Your task to perform on an android device: delete browsing data in the chrome app Image 0: 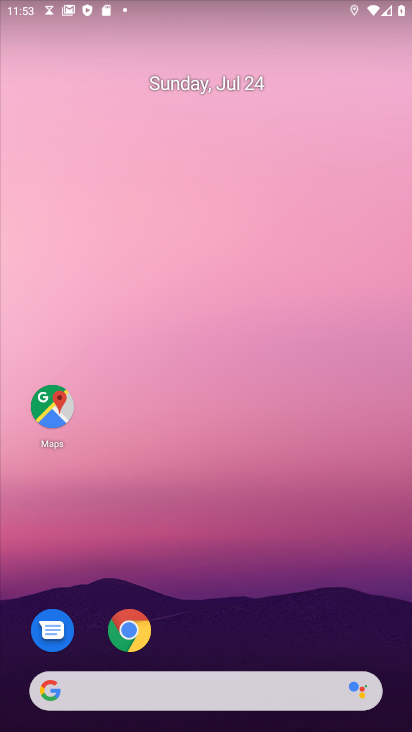
Step 0: press home button
Your task to perform on an android device: delete browsing data in the chrome app Image 1: 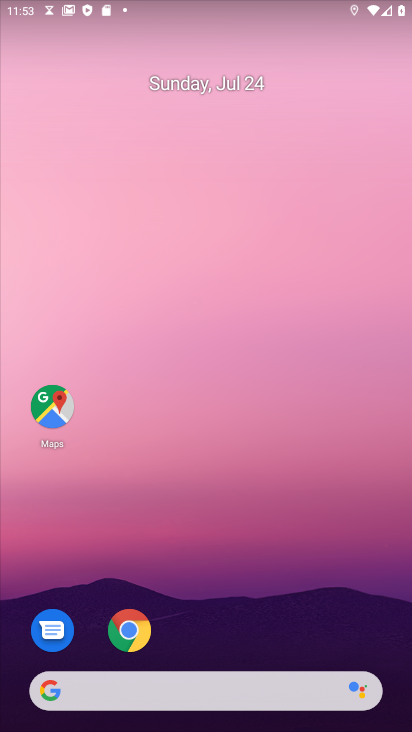
Step 1: drag from (236, 618) to (337, 20)
Your task to perform on an android device: delete browsing data in the chrome app Image 2: 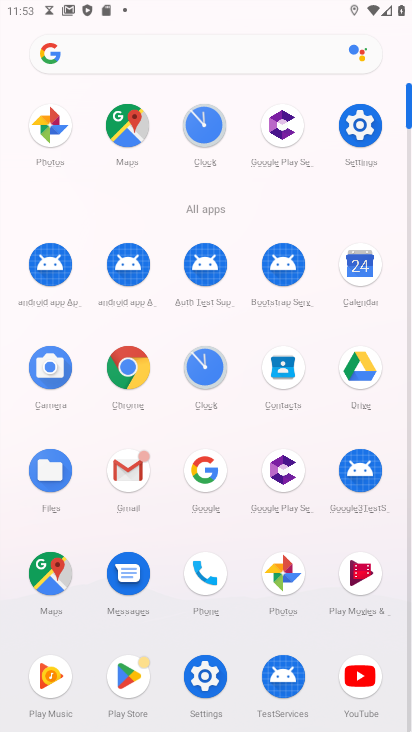
Step 2: click (117, 378)
Your task to perform on an android device: delete browsing data in the chrome app Image 3: 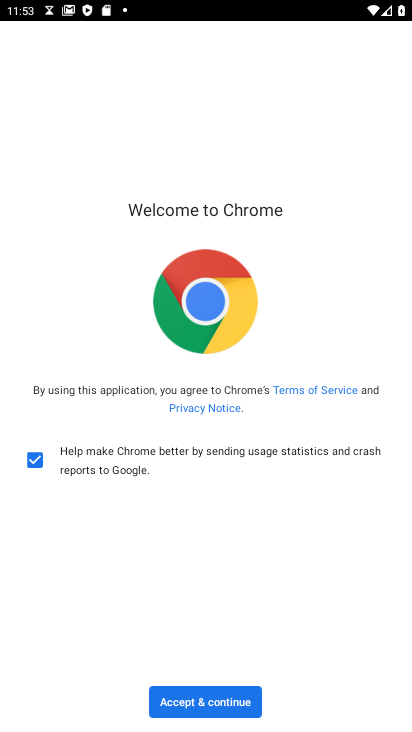
Step 3: click (236, 700)
Your task to perform on an android device: delete browsing data in the chrome app Image 4: 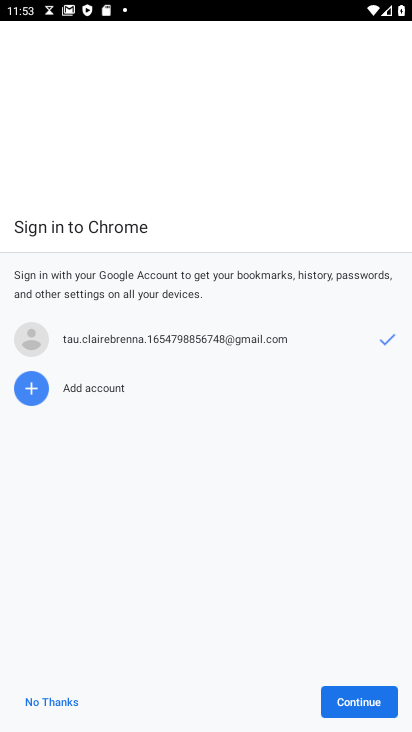
Step 4: click (392, 338)
Your task to perform on an android device: delete browsing data in the chrome app Image 5: 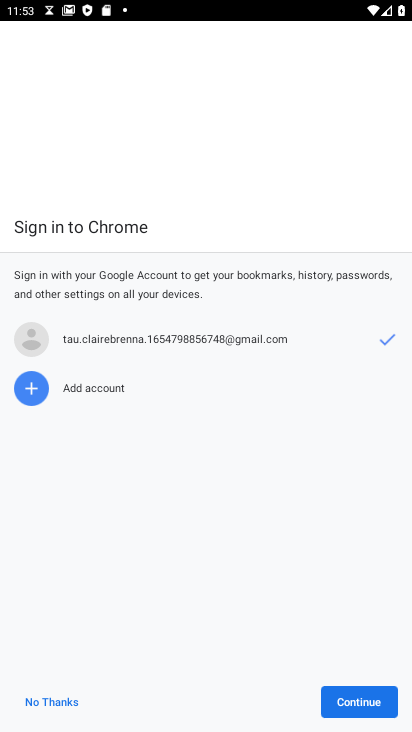
Step 5: click (370, 689)
Your task to perform on an android device: delete browsing data in the chrome app Image 6: 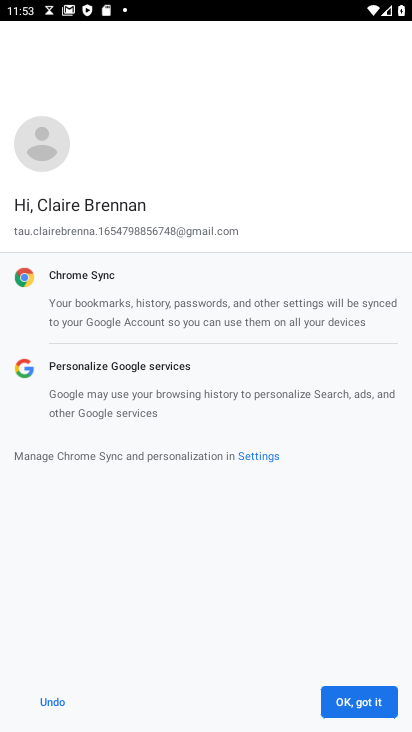
Step 6: click (370, 689)
Your task to perform on an android device: delete browsing data in the chrome app Image 7: 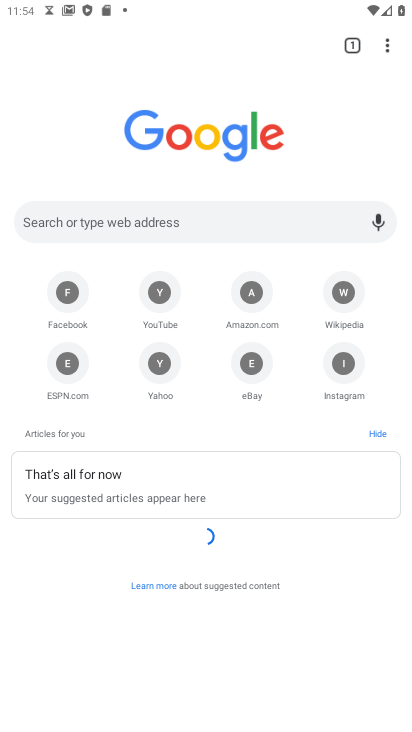
Step 7: drag from (387, 40) to (237, 386)
Your task to perform on an android device: delete browsing data in the chrome app Image 8: 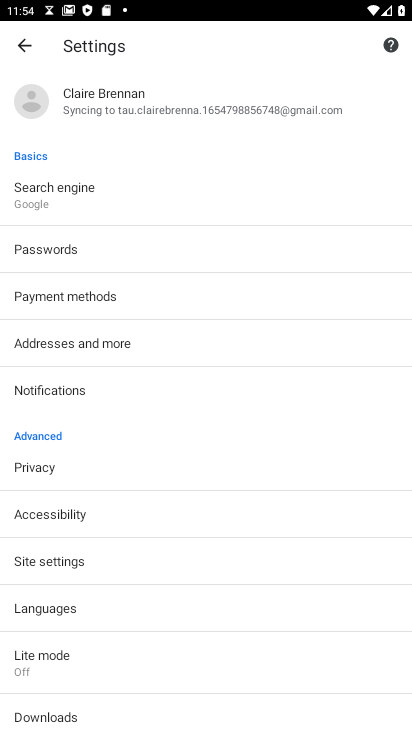
Step 8: click (41, 476)
Your task to perform on an android device: delete browsing data in the chrome app Image 9: 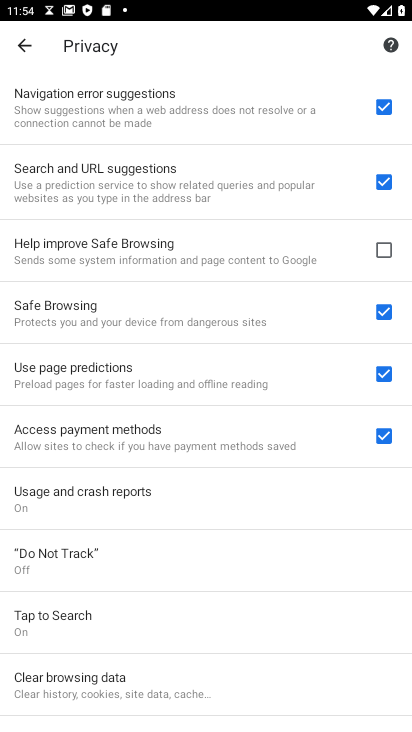
Step 9: drag from (255, 667) to (228, 178)
Your task to perform on an android device: delete browsing data in the chrome app Image 10: 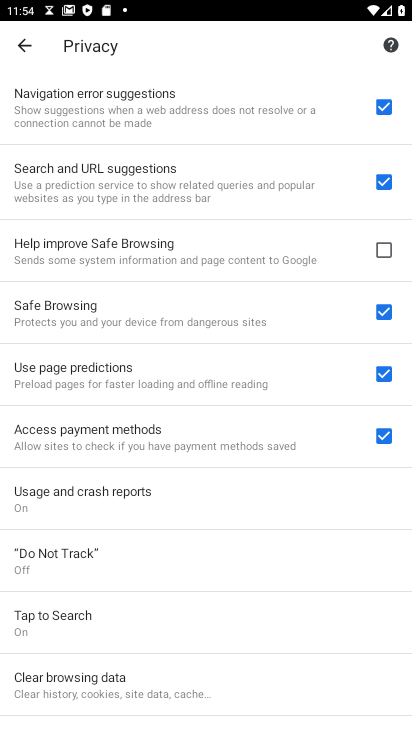
Step 10: click (124, 681)
Your task to perform on an android device: delete browsing data in the chrome app Image 11: 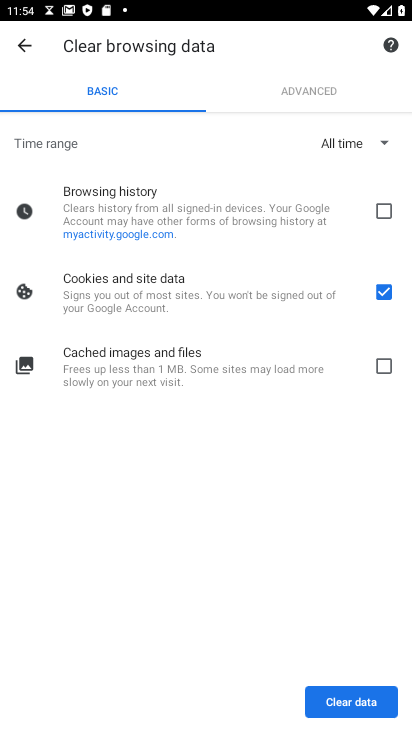
Step 11: click (385, 204)
Your task to perform on an android device: delete browsing data in the chrome app Image 12: 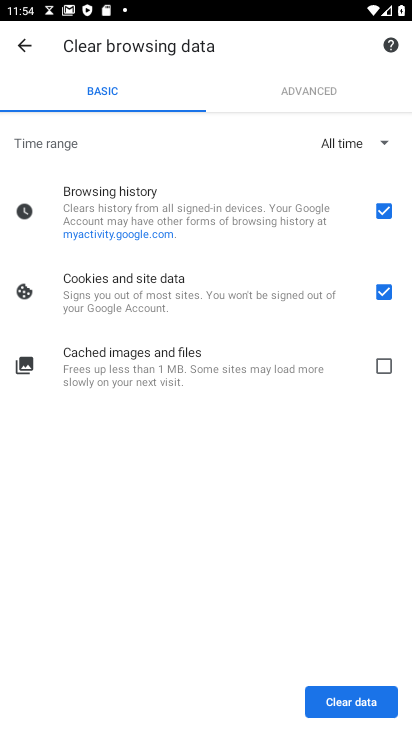
Step 12: click (383, 288)
Your task to perform on an android device: delete browsing data in the chrome app Image 13: 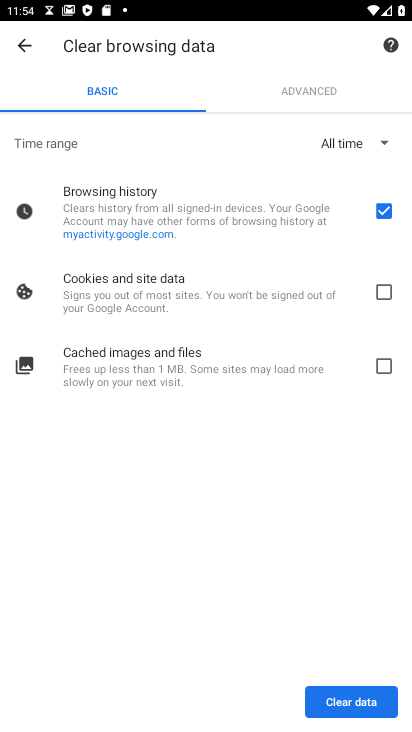
Step 13: click (361, 706)
Your task to perform on an android device: delete browsing data in the chrome app Image 14: 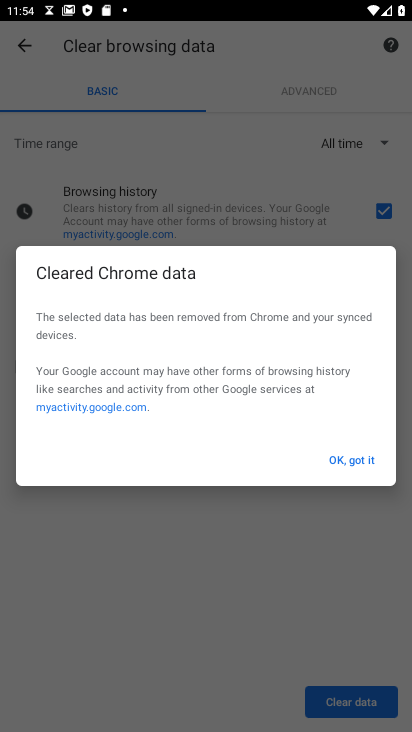
Step 14: click (353, 454)
Your task to perform on an android device: delete browsing data in the chrome app Image 15: 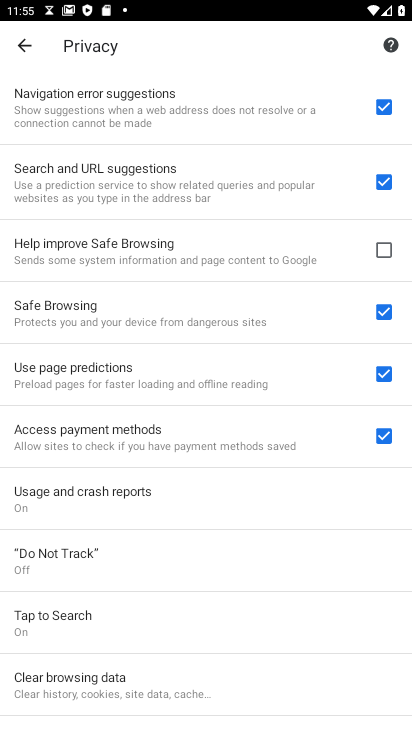
Step 15: task complete